Your task to perform on an android device: set an alarm Image 0: 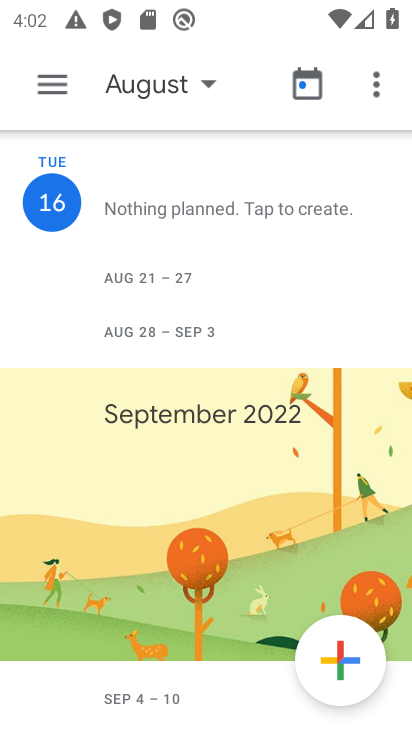
Step 0: press home button
Your task to perform on an android device: set an alarm Image 1: 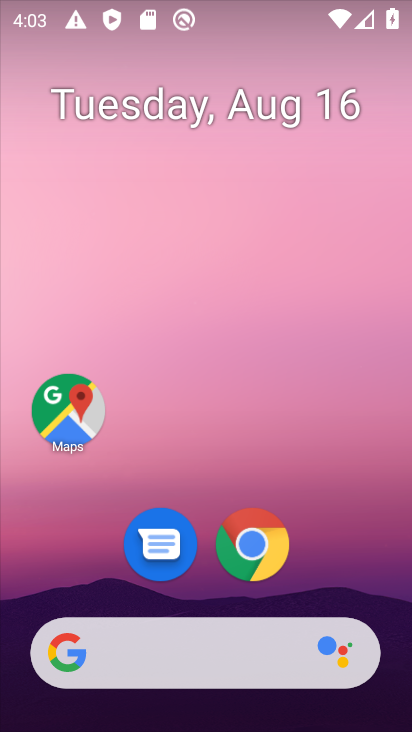
Step 1: drag from (216, 480) to (216, 121)
Your task to perform on an android device: set an alarm Image 2: 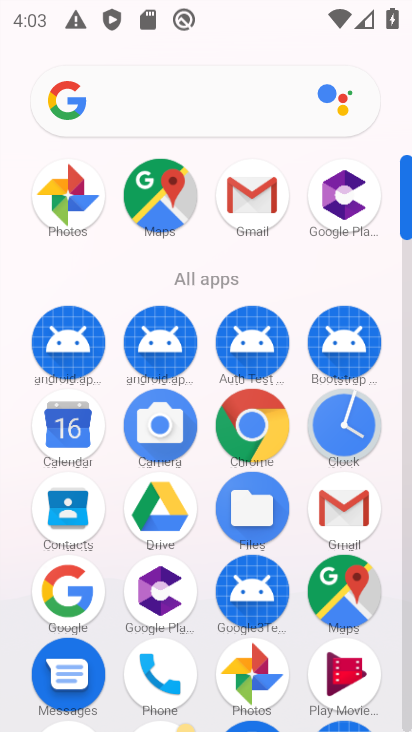
Step 2: click (330, 442)
Your task to perform on an android device: set an alarm Image 3: 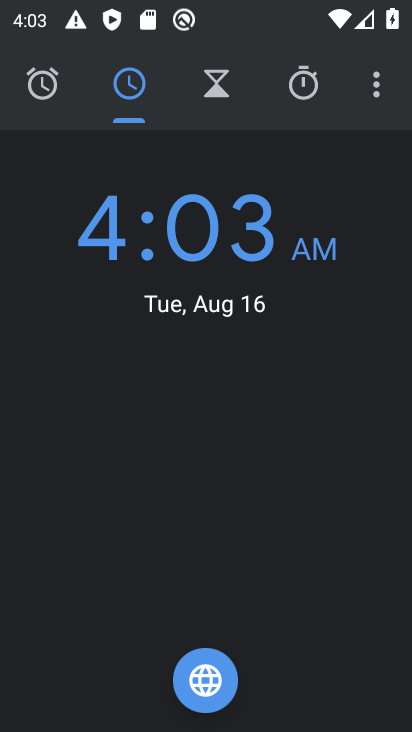
Step 3: click (384, 93)
Your task to perform on an android device: set an alarm Image 4: 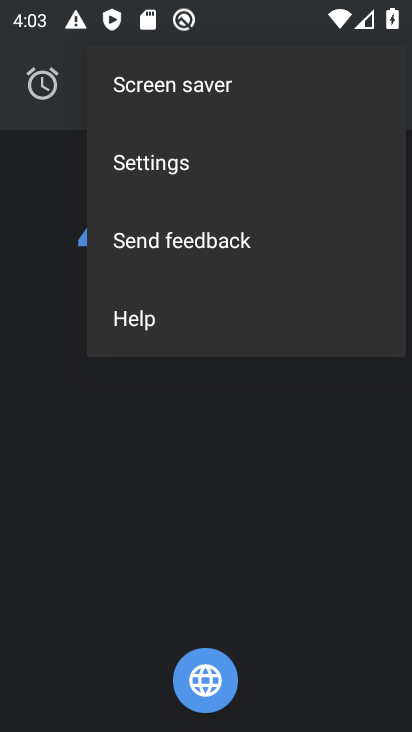
Step 4: click (21, 107)
Your task to perform on an android device: set an alarm Image 5: 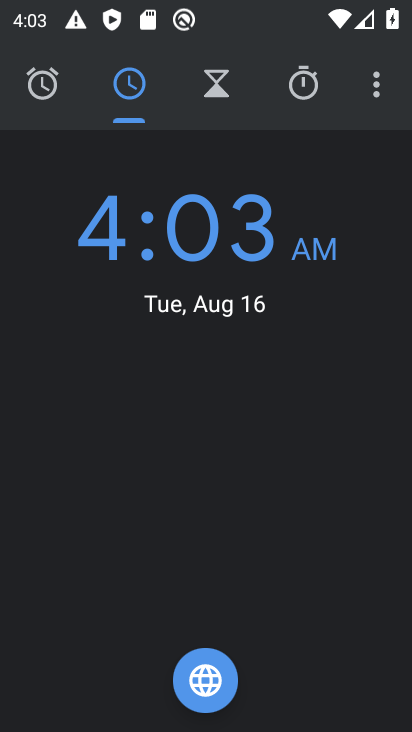
Step 5: click (37, 88)
Your task to perform on an android device: set an alarm Image 6: 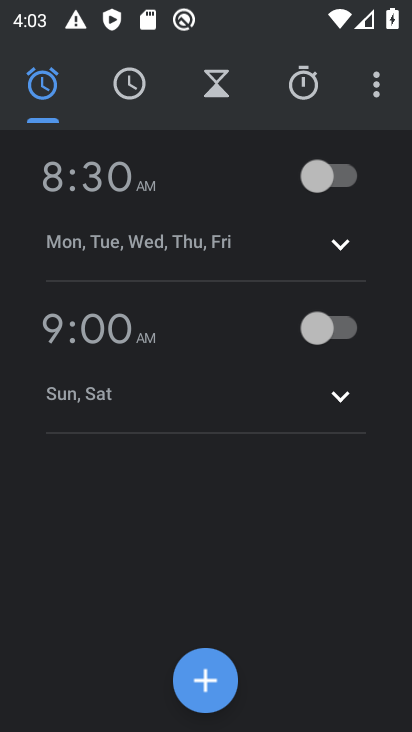
Step 6: click (335, 168)
Your task to perform on an android device: set an alarm Image 7: 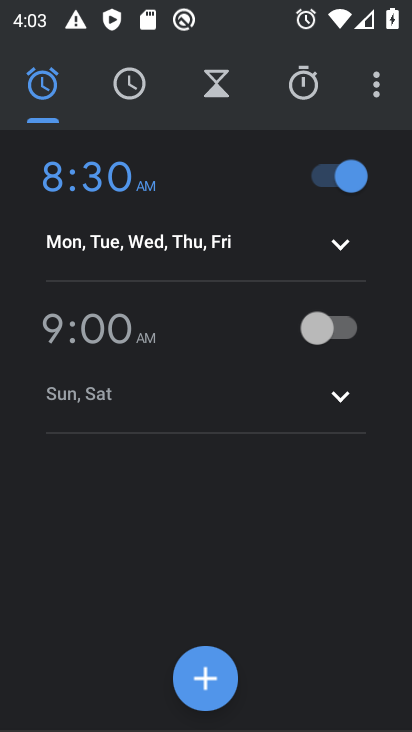
Step 7: task complete